Your task to perform on an android device: toggle notifications settings in the gmail app Image 0: 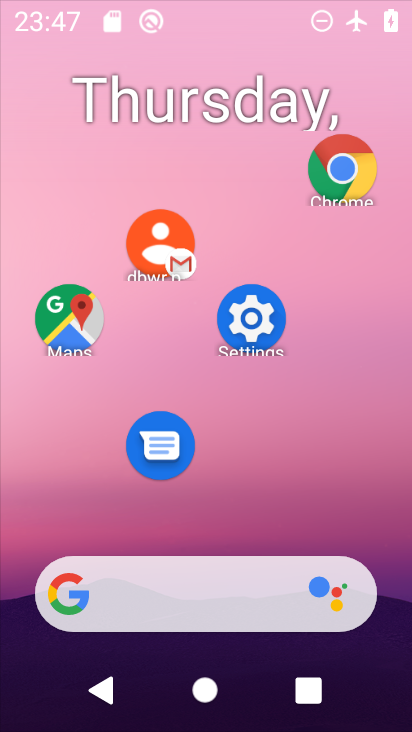
Step 0: click (263, 267)
Your task to perform on an android device: toggle notifications settings in the gmail app Image 1: 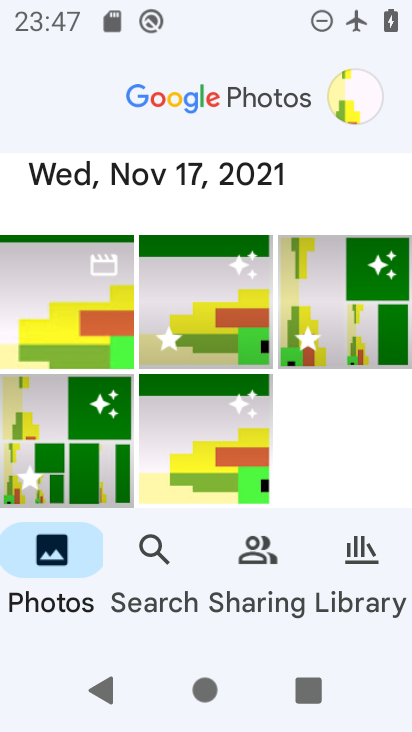
Step 1: drag from (204, 561) to (210, 202)
Your task to perform on an android device: toggle notifications settings in the gmail app Image 2: 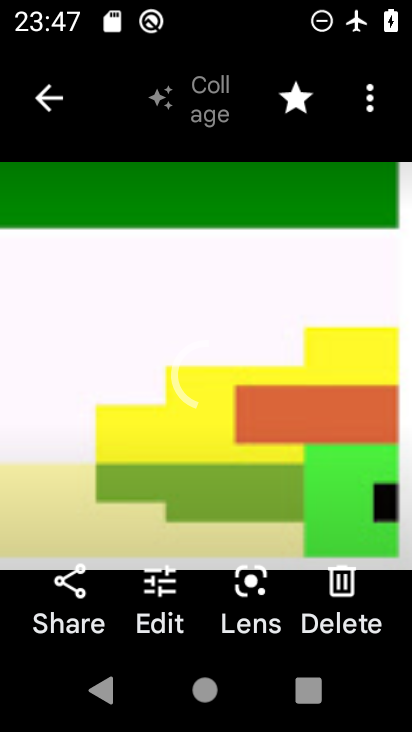
Step 2: click (42, 89)
Your task to perform on an android device: toggle notifications settings in the gmail app Image 3: 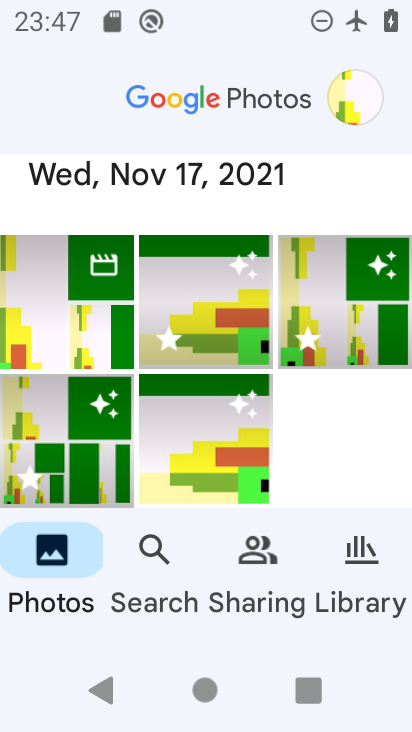
Step 3: press home button
Your task to perform on an android device: toggle notifications settings in the gmail app Image 4: 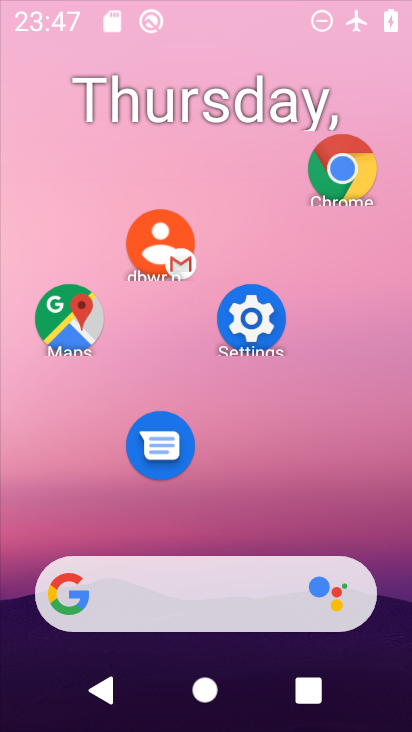
Step 4: drag from (204, 505) to (247, 44)
Your task to perform on an android device: toggle notifications settings in the gmail app Image 5: 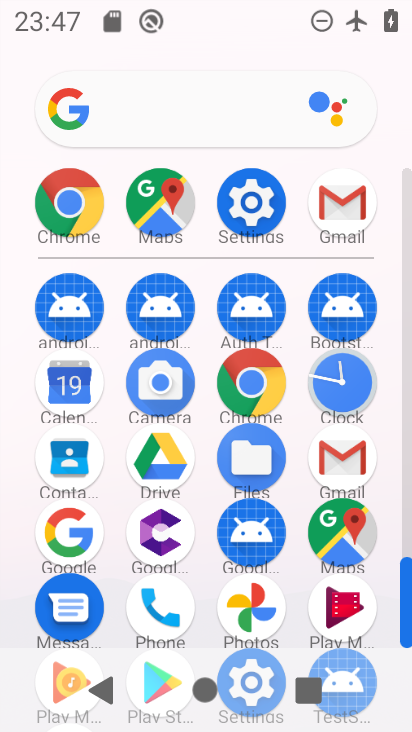
Step 5: click (347, 468)
Your task to perform on an android device: toggle notifications settings in the gmail app Image 6: 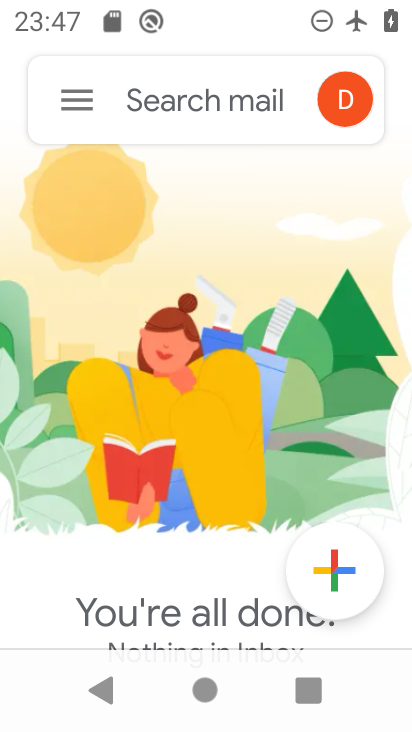
Step 6: click (63, 114)
Your task to perform on an android device: toggle notifications settings in the gmail app Image 7: 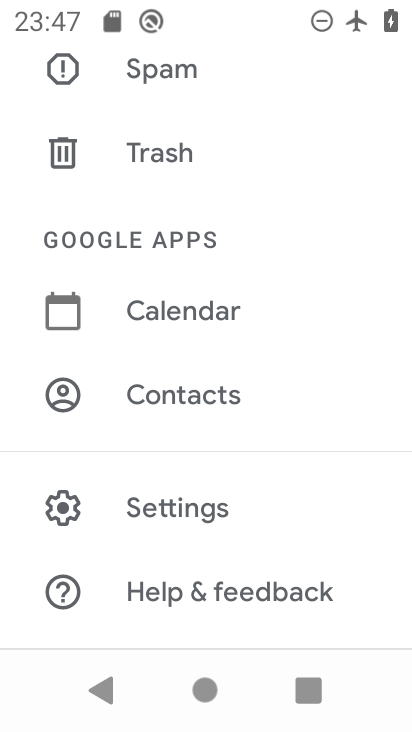
Step 7: drag from (189, 649) to (247, 372)
Your task to perform on an android device: toggle notifications settings in the gmail app Image 8: 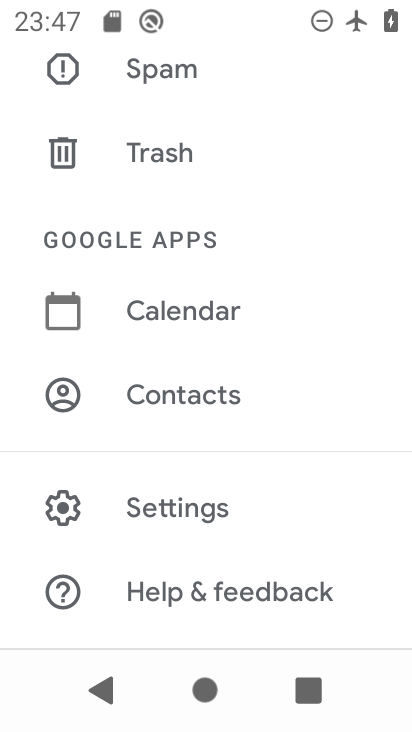
Step 8: click (209, 519)
Your task to perform on an android device: toggle notifications settings in the gmail app Image 9: 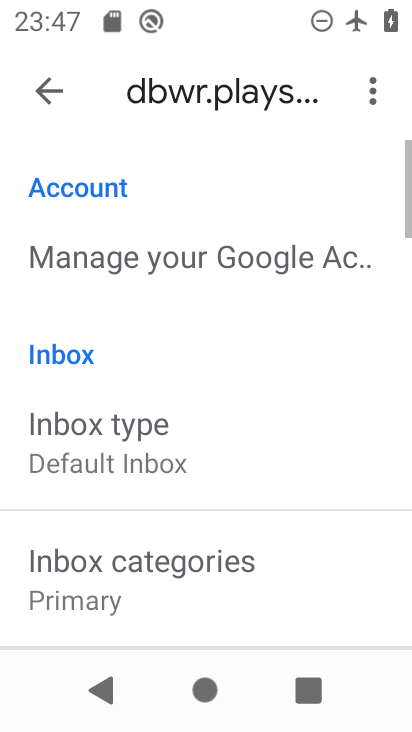
Step 9: drag from (181, 503) to (297, 260)
Your task to perform on an android device: toggle notifications settings in the gmail app Image 10: 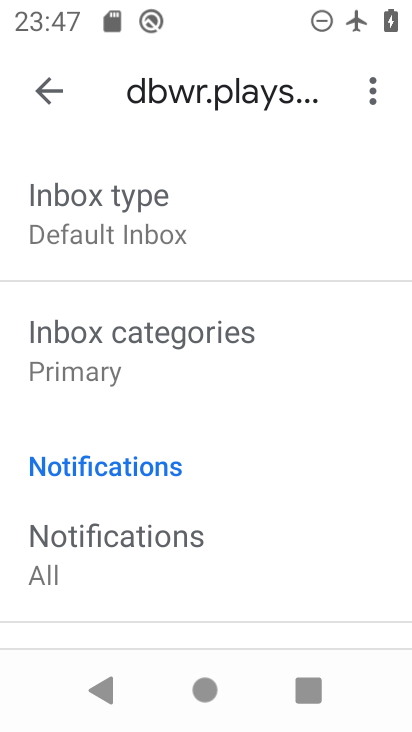
Step 10: drag from (205, 620) to (354, 164)
Your task to perform on an android device: toggle notifications settings in the gmail app Image 11: 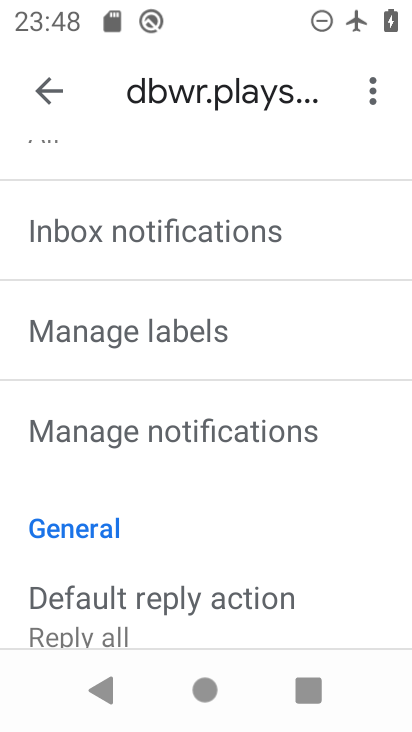
Step 11: click (164, 433)
Your task to perform on an android device: toggle notifications settings in the gmail app Image 12: 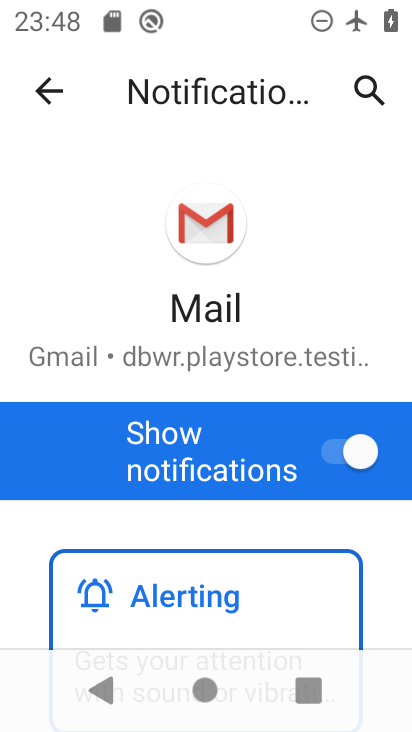
Step 12: drag from (227, 584) to (306, 342)
Your task to perform on an android device: toggle notifications settings in the gmail app Image 13: 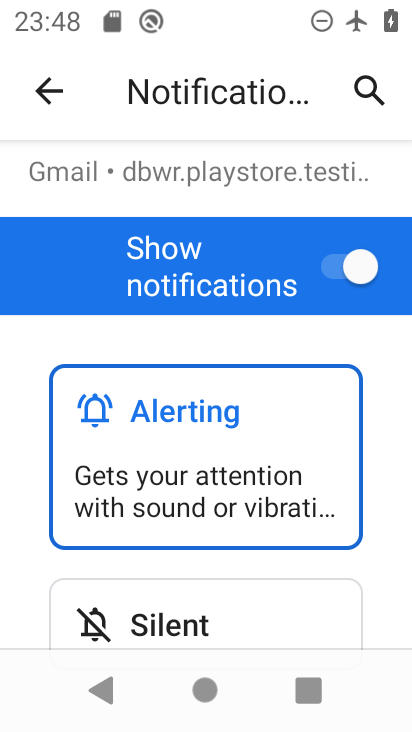
Step 13: click (343, 284)
Your task to perform on an android device: toggle notifications settings in the gmail app Image 14: 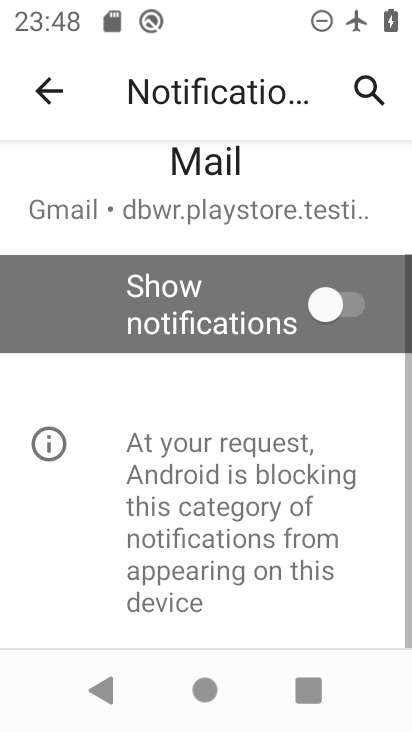
Step 14: task complete